Your task to perform on an android device: check android version Image 0: 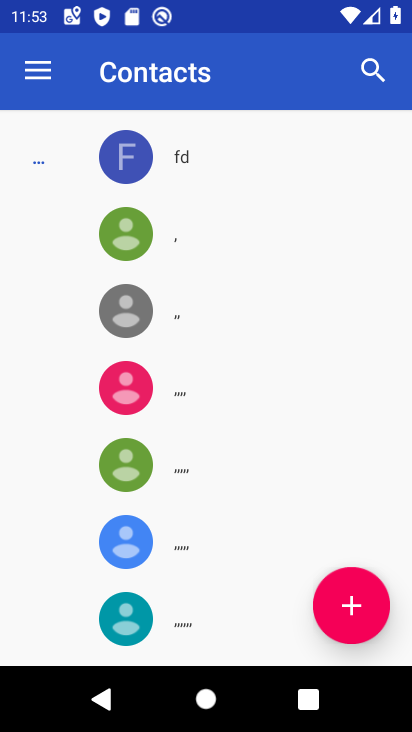
Step 0: press home button
Your task to perform on an android device: check android version Image 1: 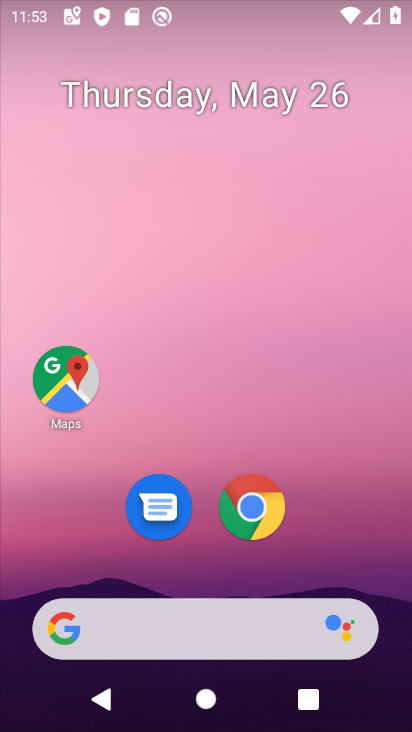
Step 1: drag from (326, 532) to (309, 95)
Your task to perform on an android device: check android version Image 2: 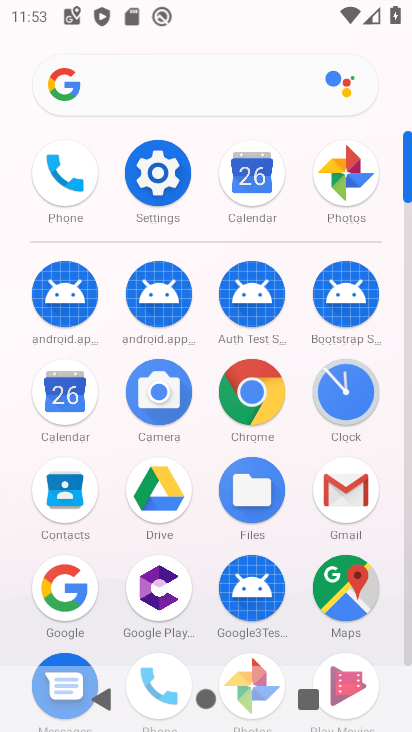
Step 2: click (162, 173)
Your task to perform on an android device: check android version Image 3: 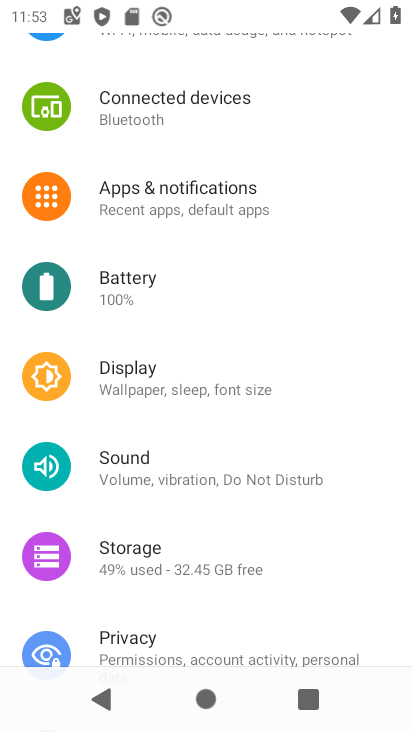
Step 3: drag from (252, 626) to (375, 161)
Your task to perform on an android device: check android version Image 4: 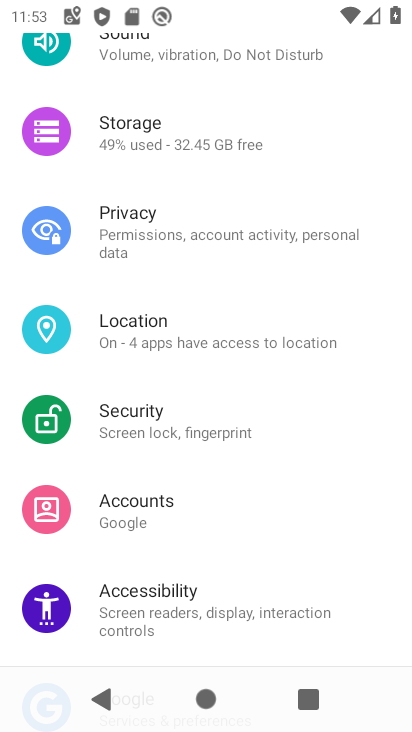
Step 4: drag from (237, 578) to (358, 157)
Your task to perform on an android device: check android version Image 5: 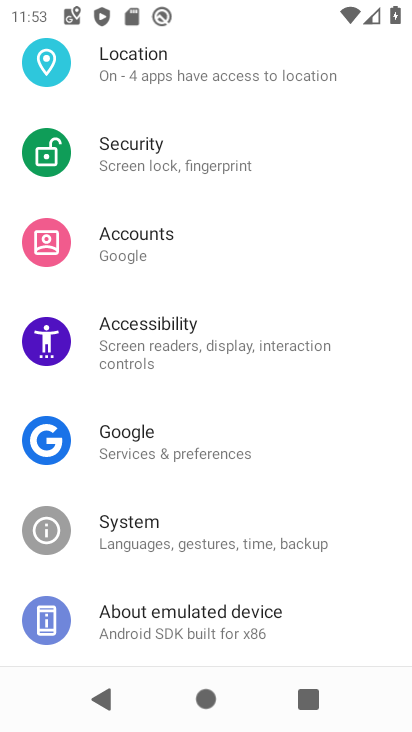
Step 5: click (202, 616)
Your task to perform on an android device: check android version Image 6: 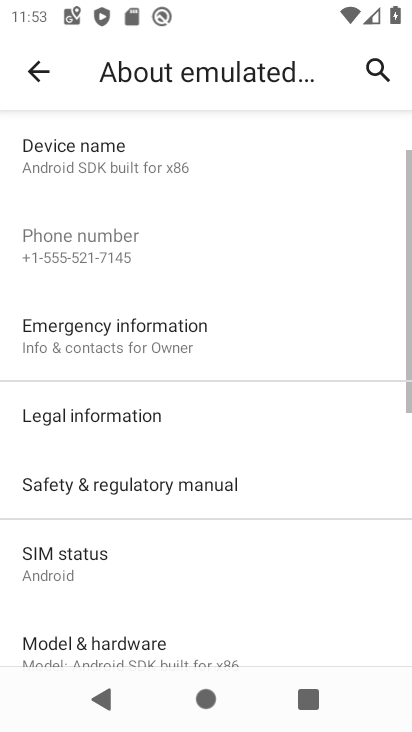
Step 6: drag from (197, 573) to (258, 264)
Your task to perform on an android device: check android version Image 7: 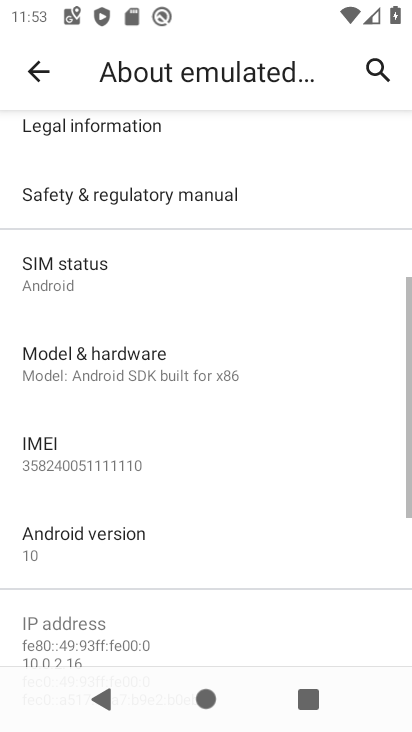
Step 7: drag from (201, 574) to (243, 373)
Your task to perform on an android device: check android version Image 8: 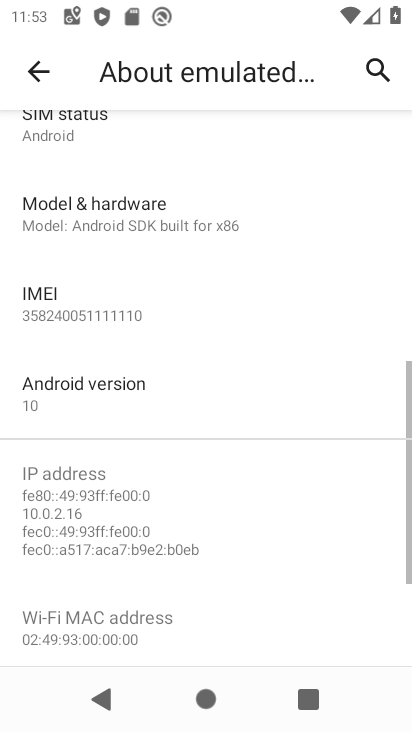
Step 8: click (142, 441)
Your task to perform on an android device: check android version Image 9: 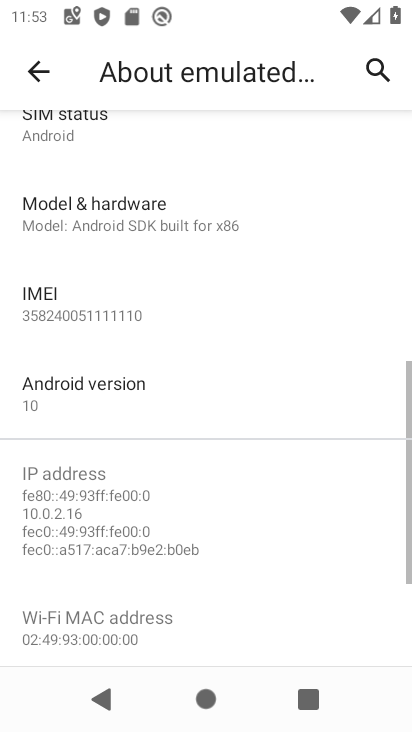
Step 9: click (150, 421)
Your task to perform on an android device: check android version Image 10: 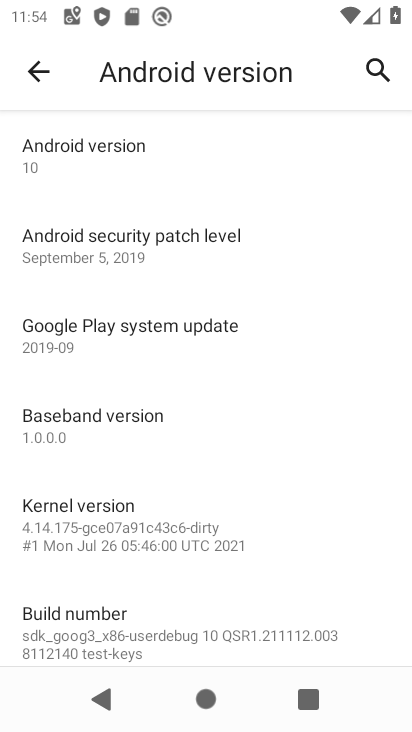
Step 10: task complete